Your task to perform on an android device: Open internet settings Image 0: 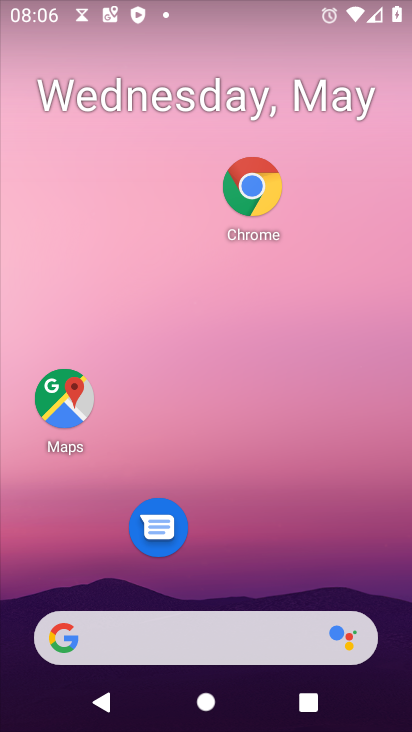
Step 0: drag from (234, 479) to (238, 26)
Your task to perform on an android device: Open internet settings Image 1: 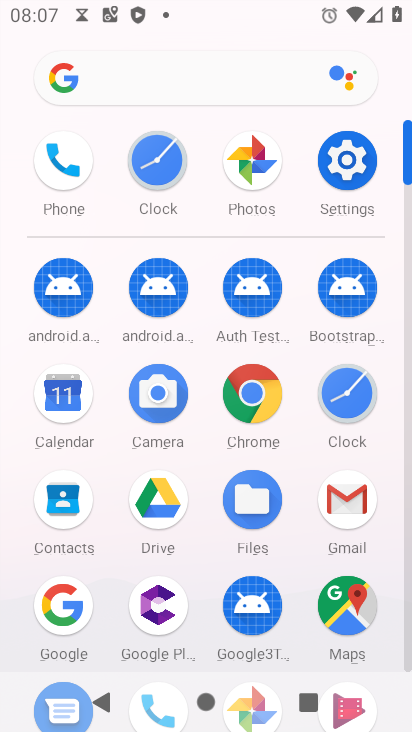
Step 1: click (343, 162)
Your task to perform on an android device: Open internet settings Image 2: 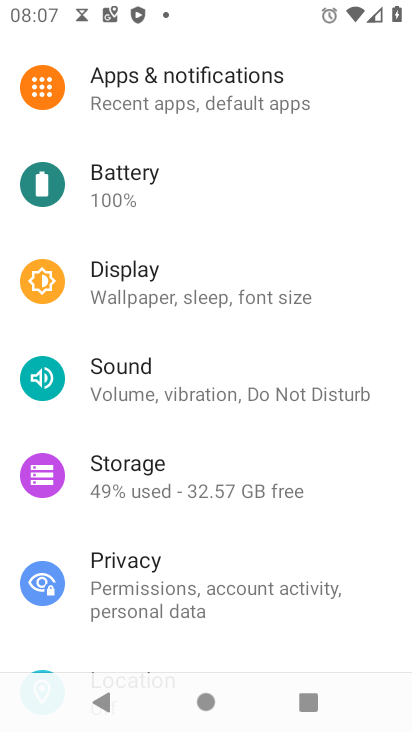
Step 2: drag from (256, 157) to (247, 591)
Your task to perform on an android device: Open internet settings Image 3: 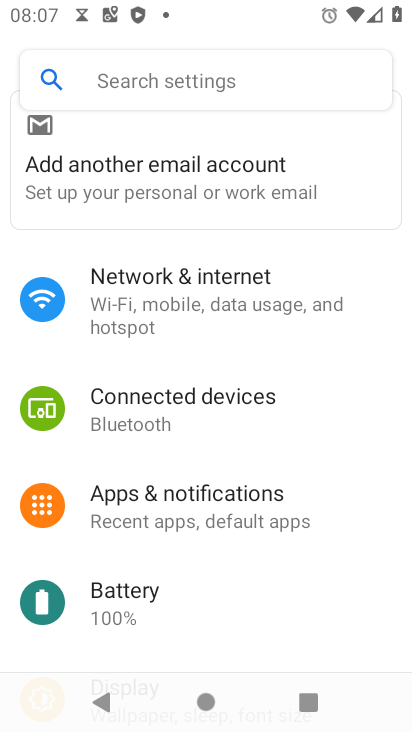
Step 3: click (233, 276)
Your task to perform on an android device: Open internet settings Image 4: 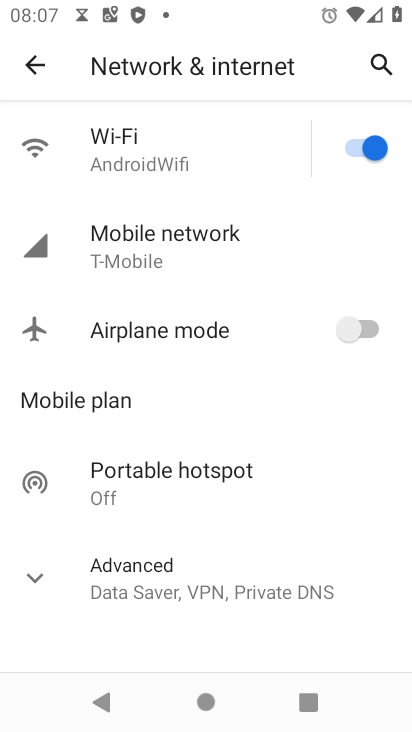
Step 4: task complete